Your task to perform on an android device: What's on my calendar today? Image 0: 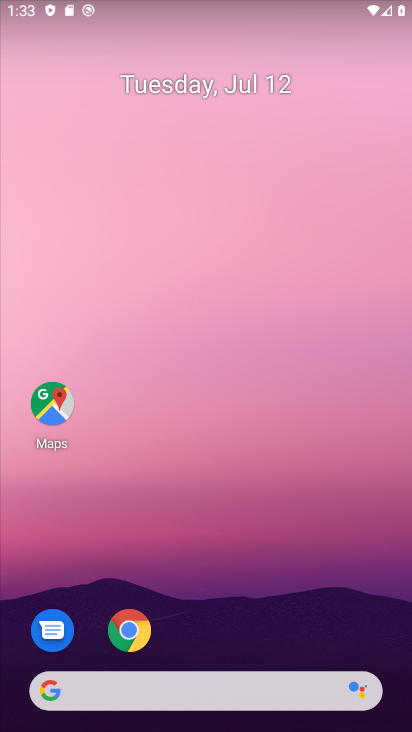
Step 0: drag from (399, 722) to (310, 100)
Your task to perform on an android device: What's on my calendar today? Image 1: 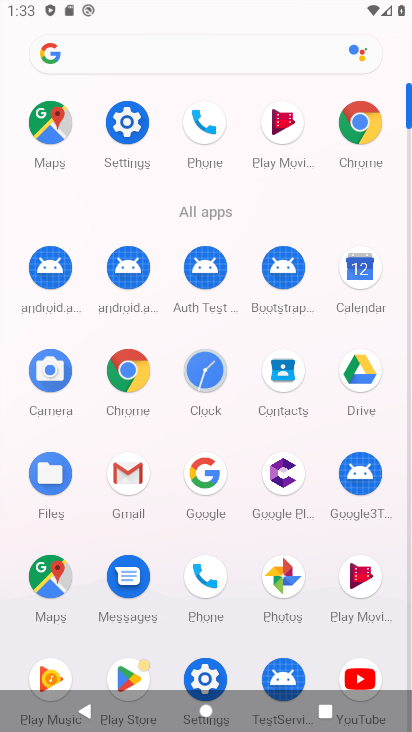
Step 1: click (360, 271)
Your task to perform on an android device: What's on my calendar today? Image 2: 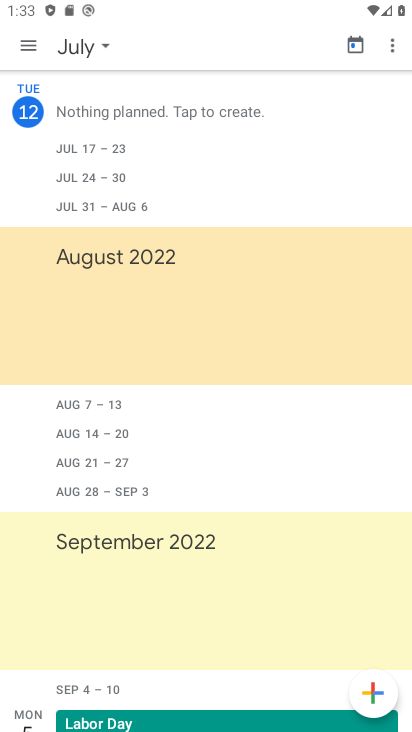
Step 2: click (104, 43)
Your task to perform on an android device: What's on my calendar today? Image 3: 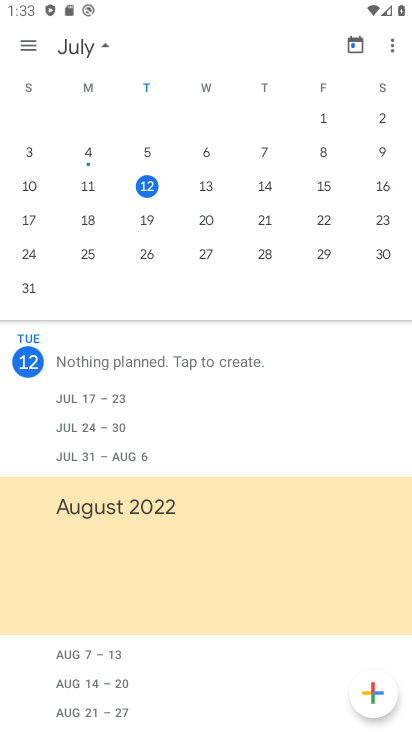
Step 3: click (153, 183)
Your task to perform on an android device: What's on my calendar today? Image 4: 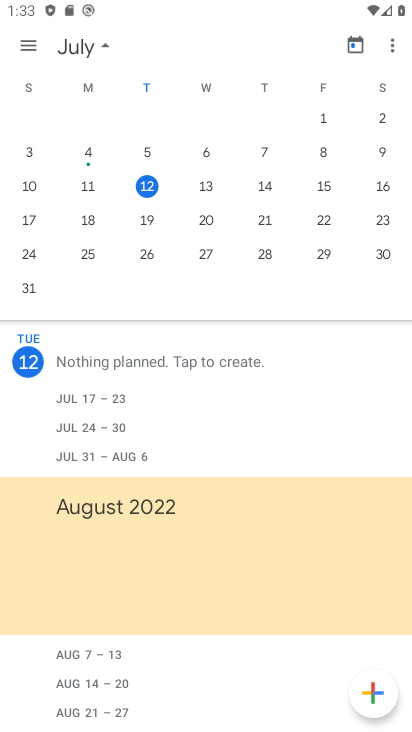
Step 4: click (148, 183)
Your task to perform on an android device: What's on my calendar today? Image 5: 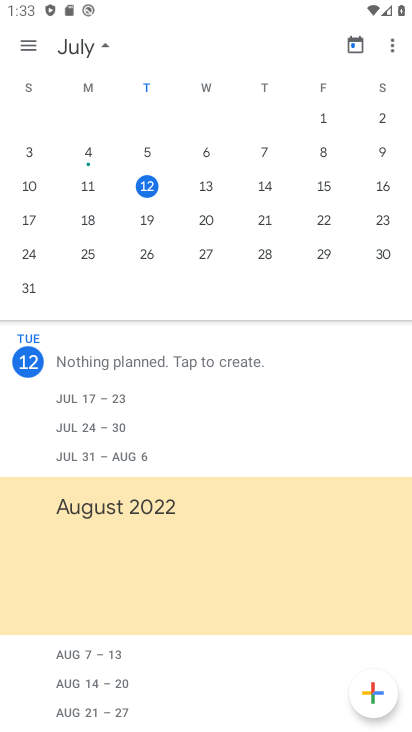
Step 5: task complete